Your task to perform on an android device: Open Google Image 0: 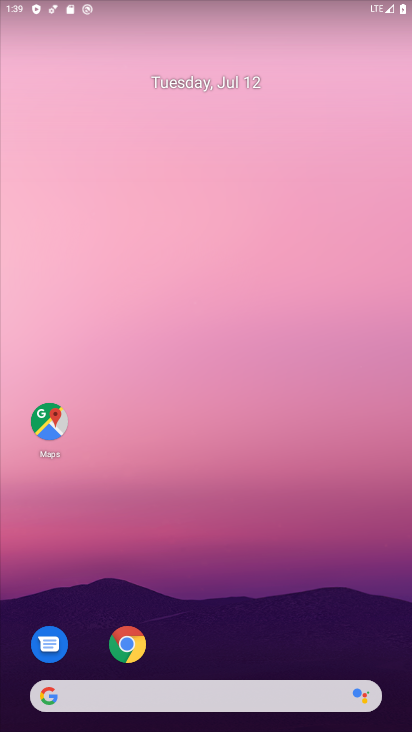
Step 0: drag from (177, 672) to (86, 150)
Your task to perform on an android device: Open Google Image 1: 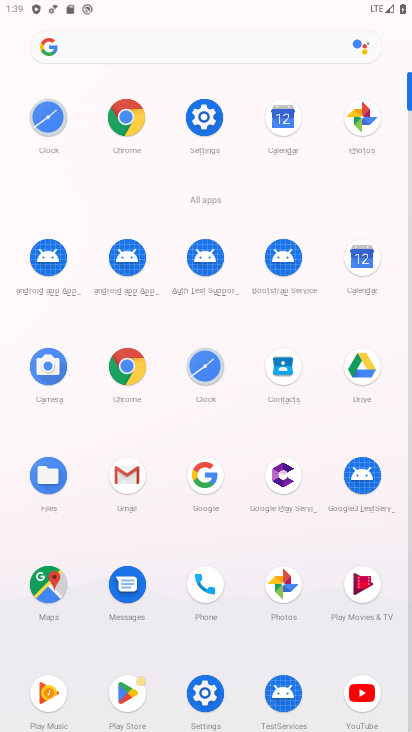
Step 1: click (205, 474)
Your task to perform on an android device: Open Google Image 2: 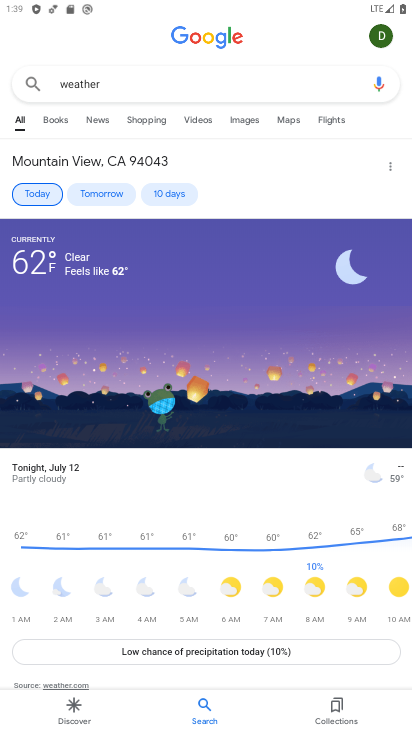
Step 2: task complete